Your task to perform on an android device: delete browsing data in the chrome app Image 0: 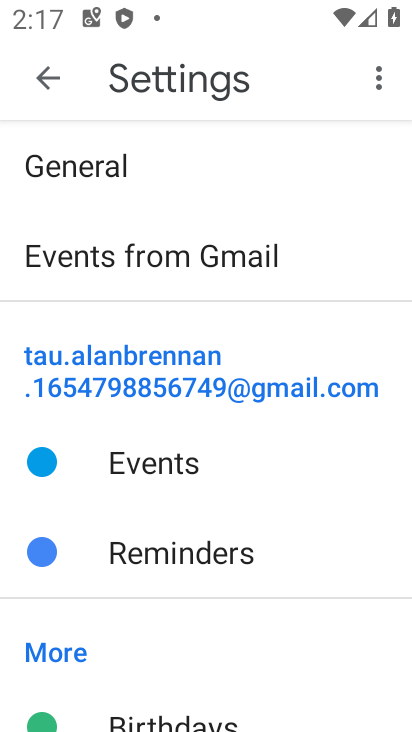
Step 0: press home button
Your task to perform on an android device: delete browsing data in the chrome app Image 1: 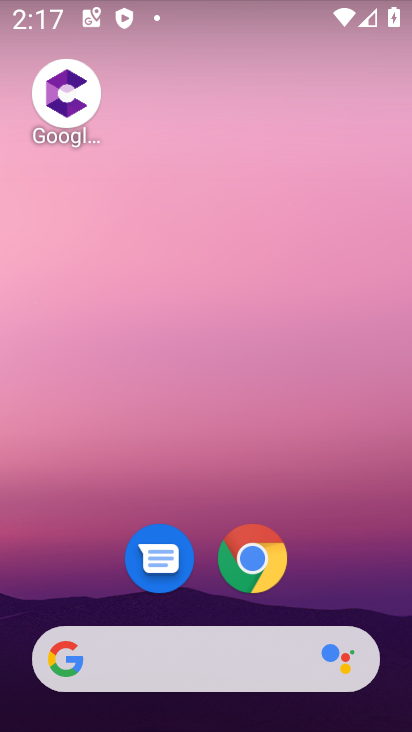
Step 1: drag from (358, 578) to (357, 145)
Your task to perform on an android device: delete browsing data in the chrome app Image 2: 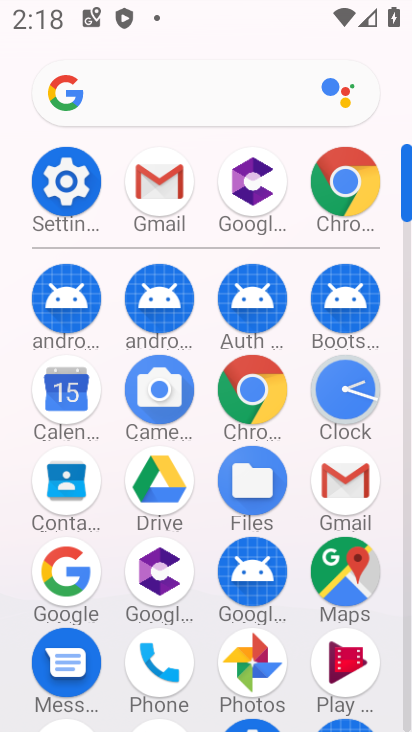
Step 2: click (344, 200)
Your task to perform on an android device: delete browsing data in the chrome app Image 3: 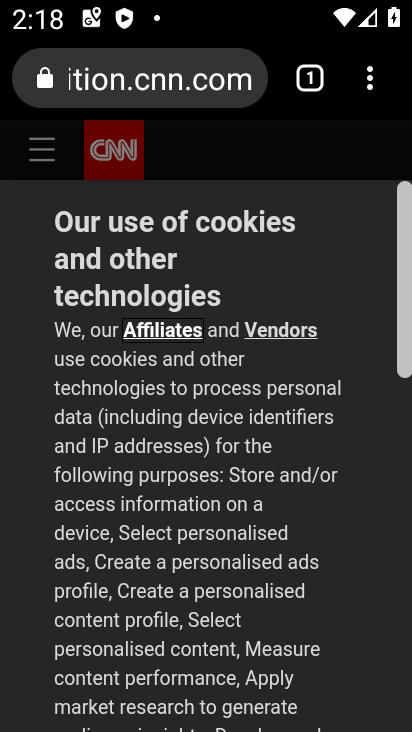
Step 3: click (368, 88)
Your task to perform on an android device: delete browsing data in the chrome app Image 4: 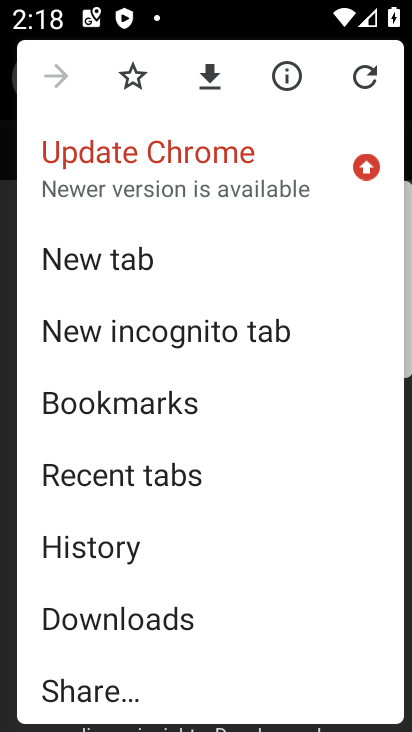
Step 4: drag from (335, 461) to (344, 381)
Your task to perform on an android device: delete browsing data in the chrome app Image 5: 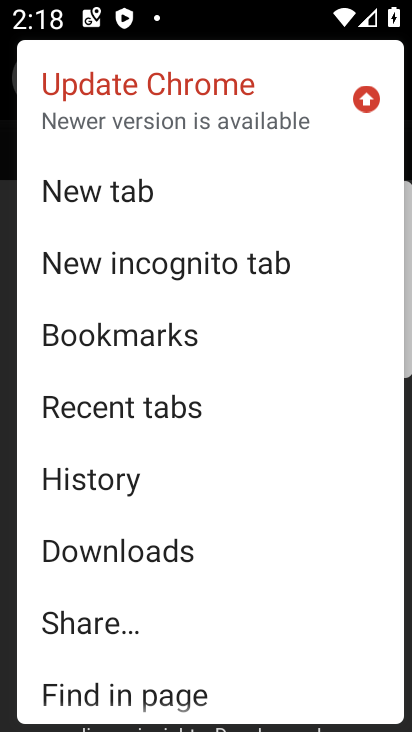
Step 5: drag from (355, 511) to (352, 425)
Your task to perform on an android device: delete browsing data in the chrome app Image 6: 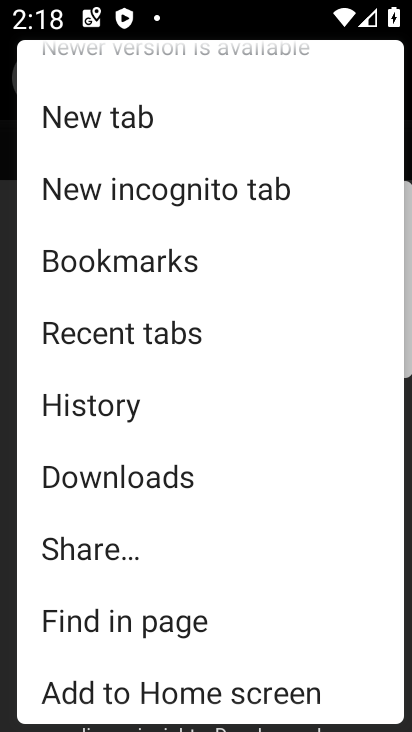
Step 6: drag from (341, 503) to (336, 408)
Your task to perform on an android device: delete browsing data in the chrome app Image 7: 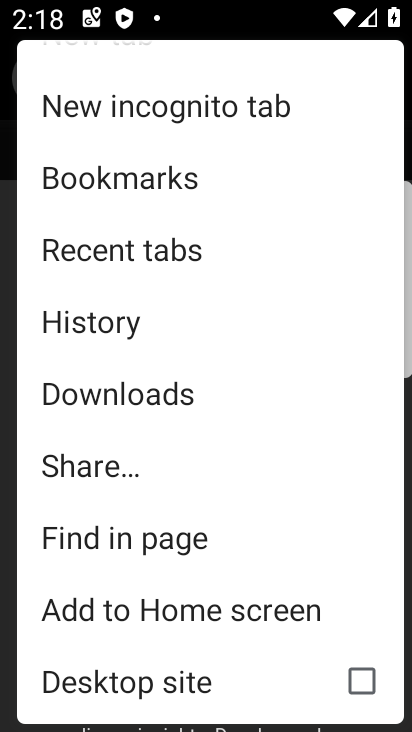
Step 7: drag from (341, 544) to (331, 462)
Your task to perform on an android device: delete browsing data in the chrome app Image 8: 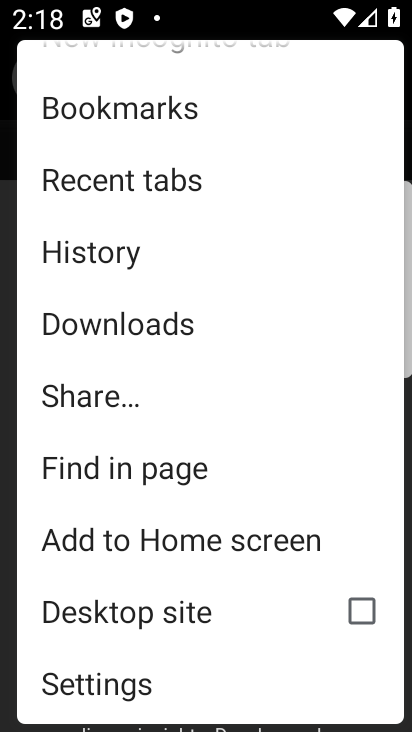
Step 8: drag from (239, 679) to (239, 551)
Your task to perform on an android device: delete browsing data in the chrome app Image 9: 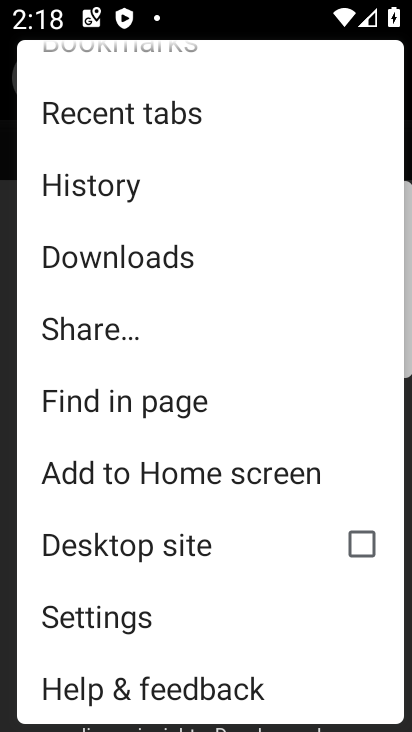
Step 9: click (227, 624)
Your task to perform on an android device: delete browsing data in the chrome app Image 10: 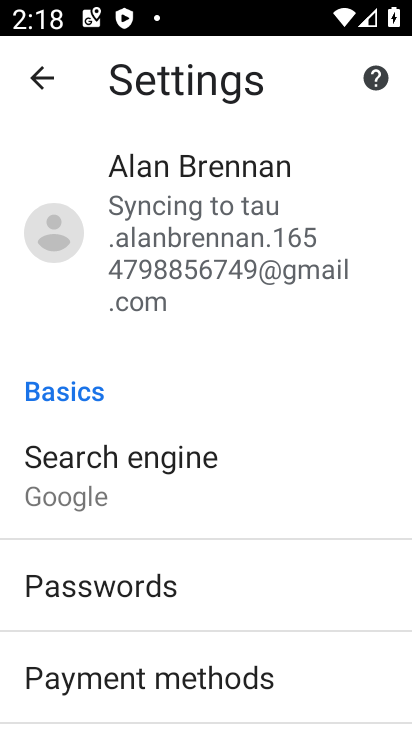
Step 10: drag from (324, 596) to (341, 474)
Your task to perform on an android device: delete browsing data in the chrome app Image 11: 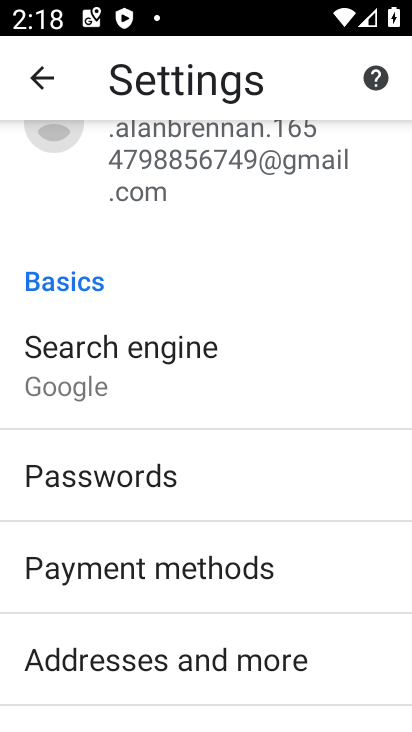
Step 11: drag from (360, 545) to (367, 465)
Your task to perform on an android device: delete browsing data in the chrome app Image 12: 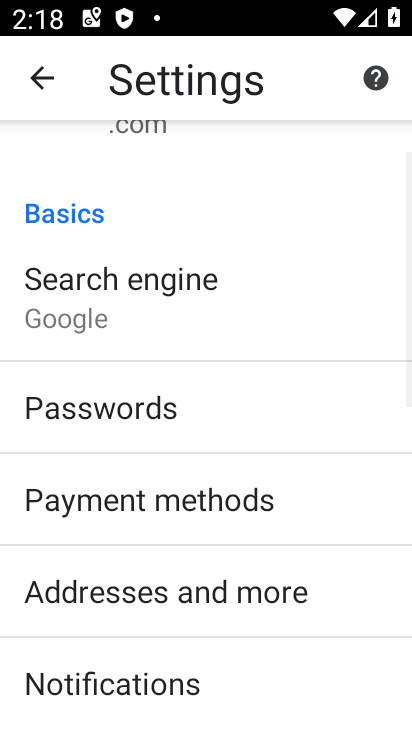
Step 12: drag from (339, 539) to (326, 456)
Your task to perform on an android device: delete browsing data in the chrome app Image 13: 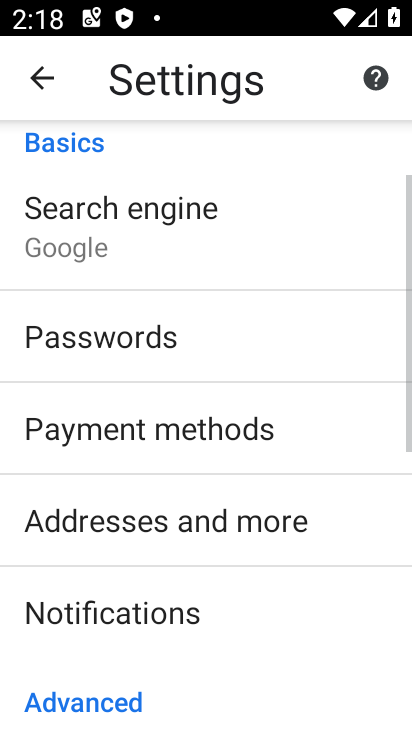
Step 13: drag from (323, 550) to (325, 468)
Your task to perform on an android device: delete browsing data in the chrome app Image 14: 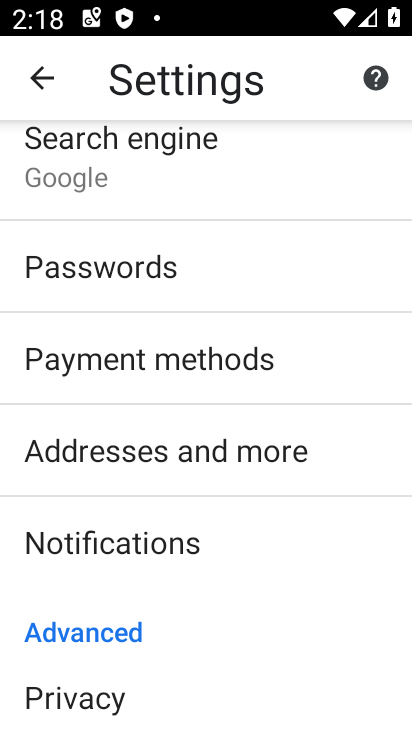
Step 14: drag from (333, 573) to (334, 497)
Your task to perform on an android device: delete browsing data in the chrome app Image 15: 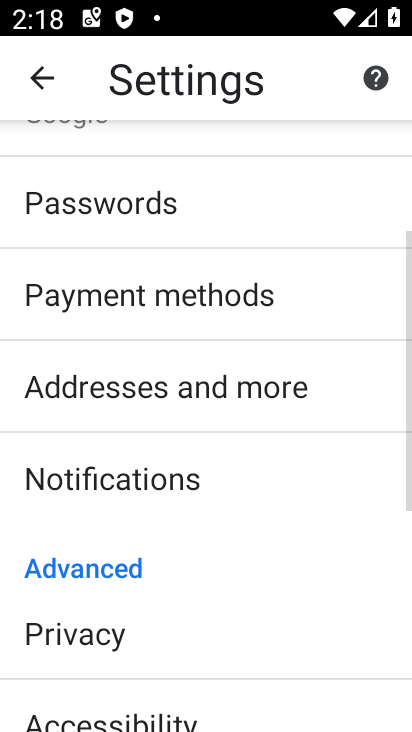
Step 15: drag from (335, 575) to (334, 490)
Your task to perform on an android device: delete browsing data in the chrome app Image 16: 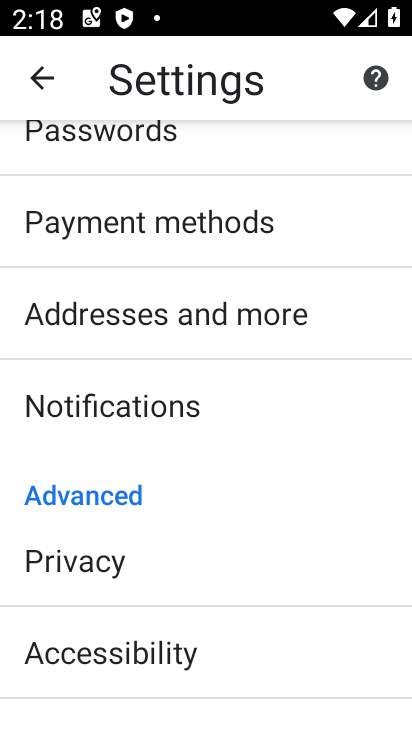
Step 16: drag from (314, 605) to (320, 462)
Your task to perform on an android device: delete browsing data in the chrome app Image 17: 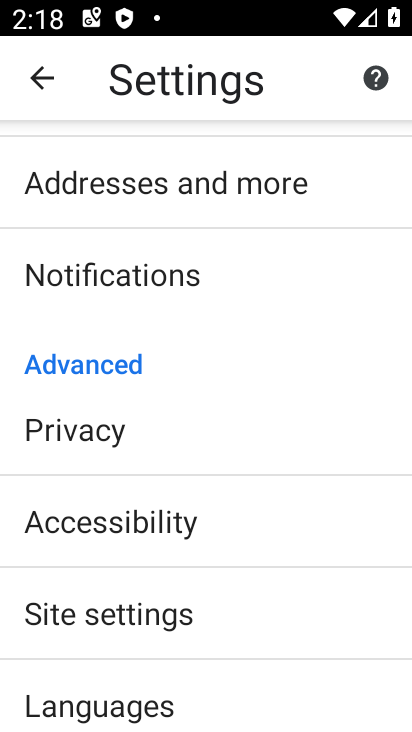
Step 17: click (268, 444)
Your task to perform on an android device: delete browsing data in the chrome app Image 18: 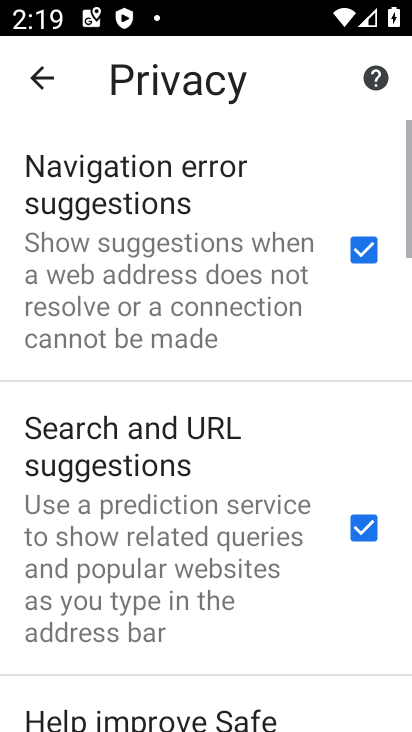
Step 18: drag from (295, 539) to (296, 464)
Your task to perform on an android device: delete browsing data in the chrome app Image 19: 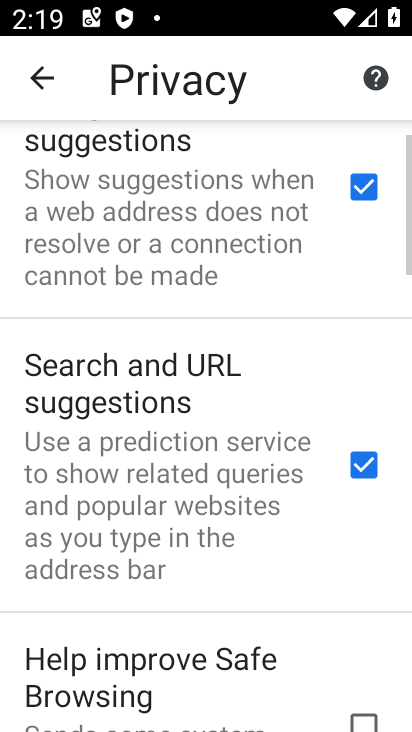
Step 19: drag from (287, 556) to (292, 423)
Your task to perform on an android device: delete browsing data in the chrome app Image 20: 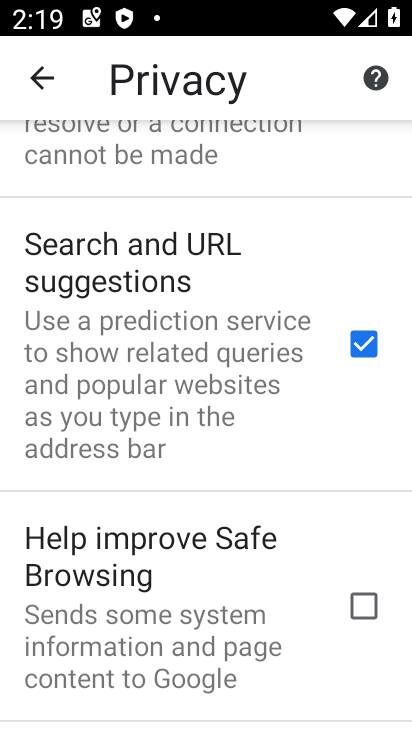
Step 20: drag from (307, 533) to (298, 396)
Your task to perform on an android device: delete browsing data in the chrome app Image 21: 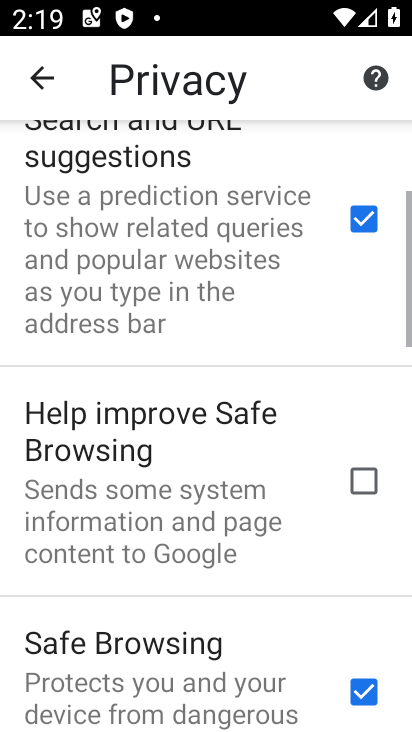
Step 21: drag from (294, 552) to (292, 432)
Your task to perform on an android device: delete browsing data in the chrome app Image 22: 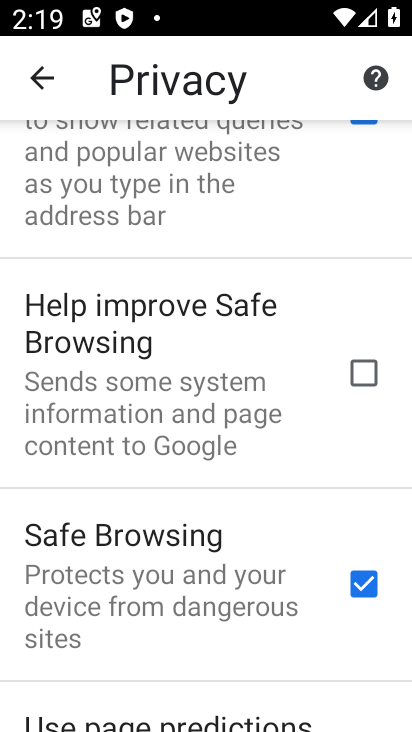
Step 22: drag from (302, 619) to (302, 505)
Your task to perform on an android device: delete browsing data in the chrome app Image 23: 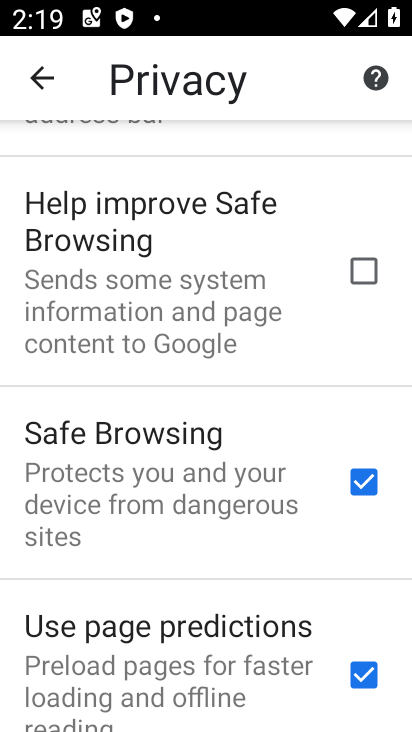
Step 23: drag from (304, 641) to (298, 494)
Your task to perform on an android device: delete browsing data in the chrome app Image 24: 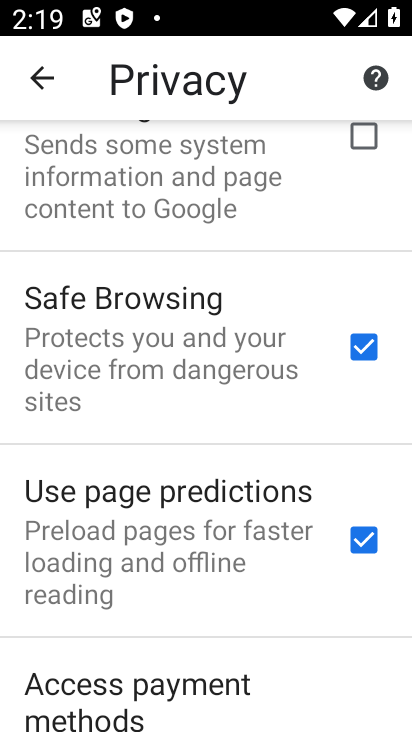
Step 24: drag from (284, 597) to (269, 470)
Your task to perform on an android device: delete browsing data in the chrome app Image 25: 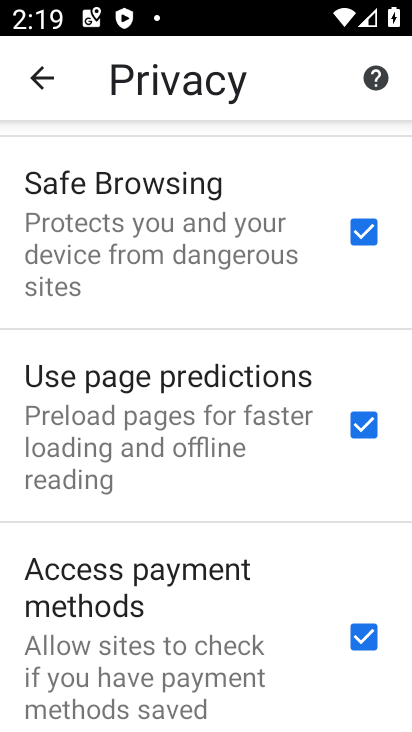
Step 25: drag from (289, 676) to (291, 529)
Your task to perform on an android device: delete browsing data in the chrome app Image 26: 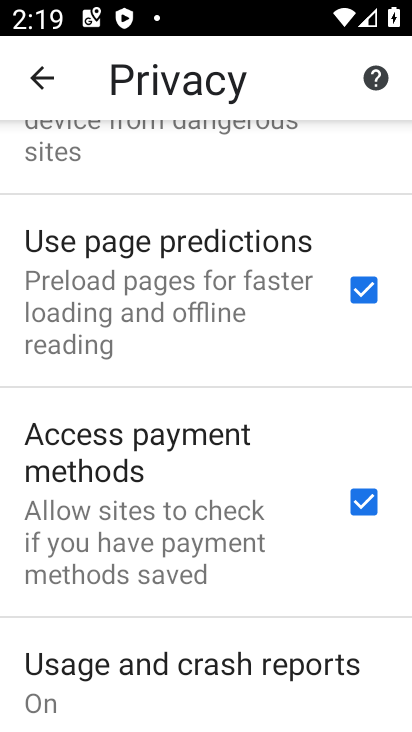
Step 26: drag from (303, 477) to (294, 330)
Your task to perform on an android device: delete browsing data in the chrome app Image 27: 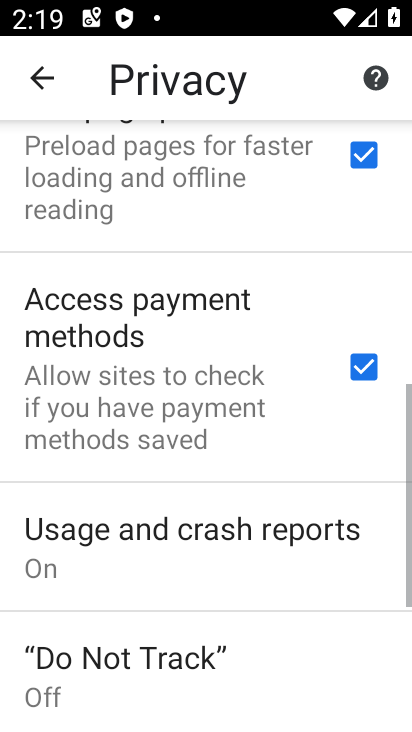
Step 27: drag from (297, 438) to (276, 305)
Your task to perform on an android device: delete browsing data in the chrome app Image 28: 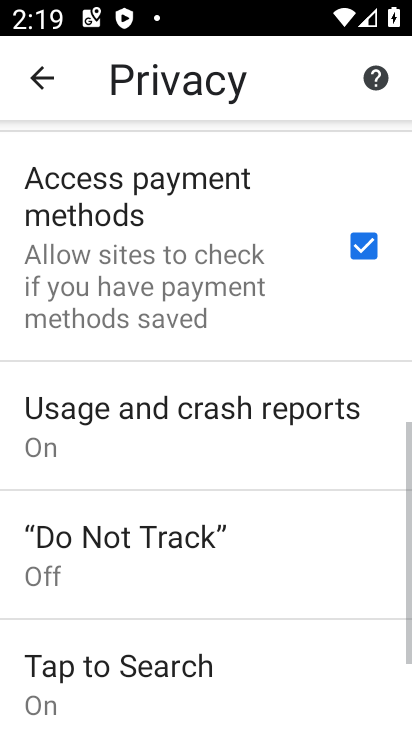
Step 28: drag from (269, 466) to (263, 307)
Your task to perform on an android device: delete browsing data in the chrome app Image 29: 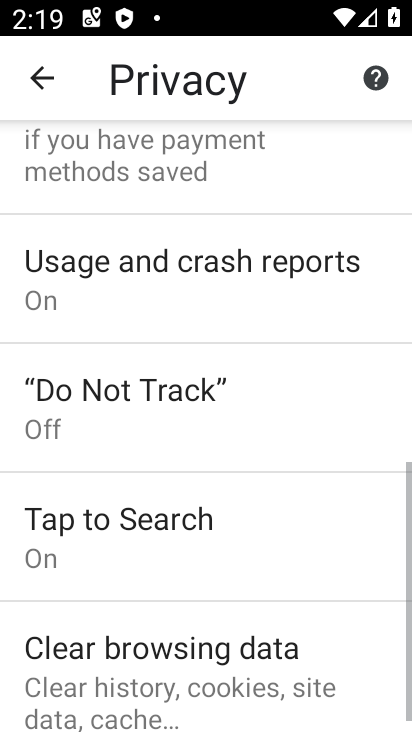
Step 29: drag from (287, 503) to (291, 383)
Your task to perform on an android device: delete browsing data in the chrome app Image 30: 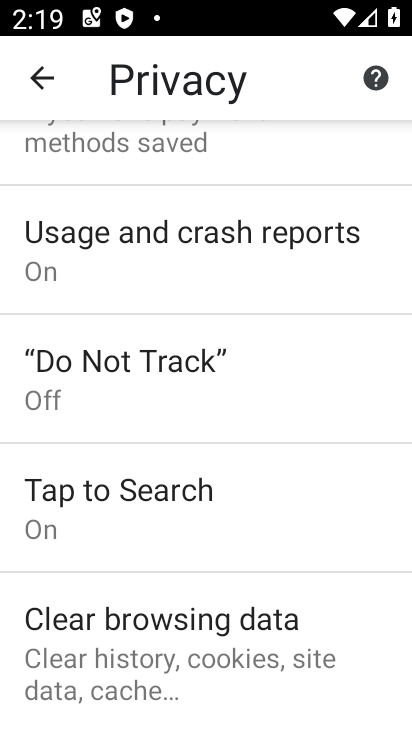
Step 30: click (301, 645)
Your task to perform on an android device: delete browsing data in the chrome app Image 31: 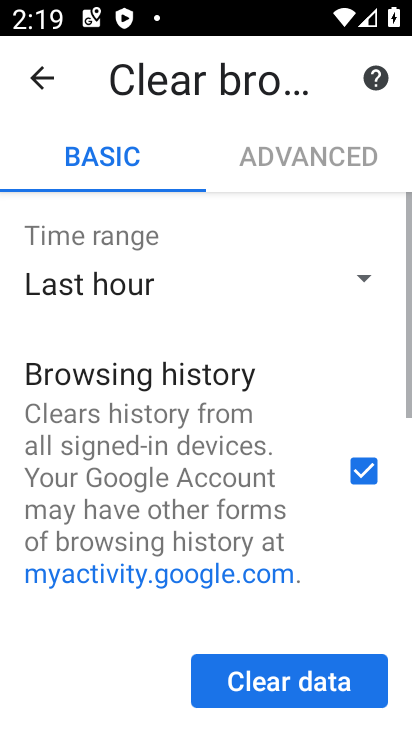
Step 31: click (313, 676)
Your task to perform on an android device: delete browsing data in the chrome app Image 32: 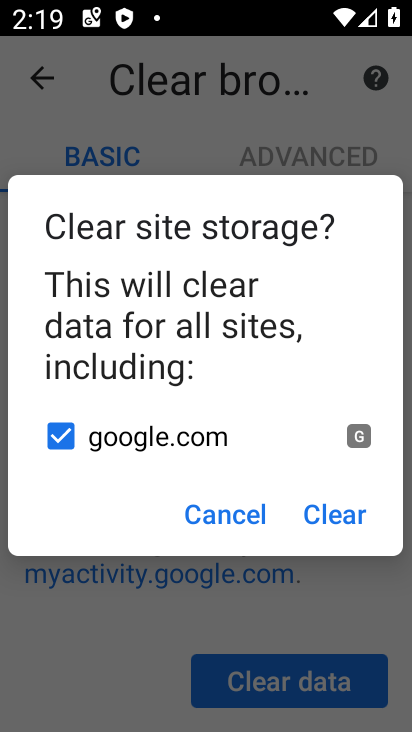
Step 32: click (325, 510)
Your task to perform on an android device: delete browsing data in the chrome app Image 33: 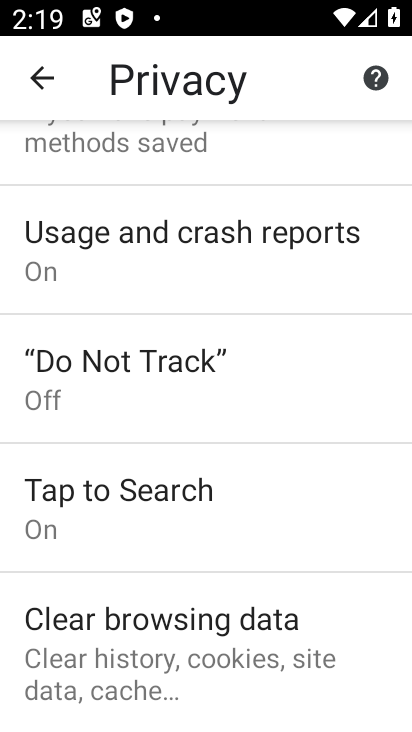
Step 33: task complete